Your task to perform on an android device: Find coffee shops on Maps Image 0: 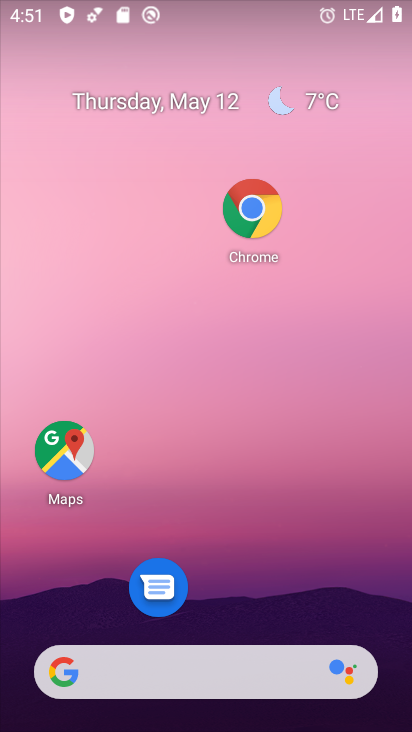
Step 0: drag from (248, 587) to (245, 121)
Your task to perform on an android device: Find coffee shops on Maps Image 1: 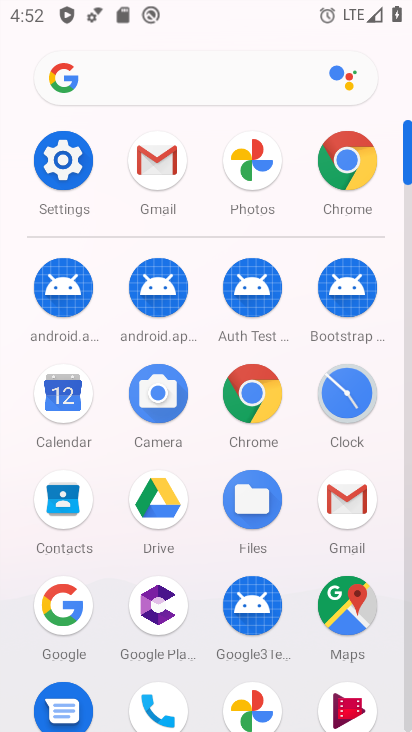
Step 1: drag from (216, 679) to (215, 342)
Your task to perform on an android device: Find coffee shops on Maps Image 2: 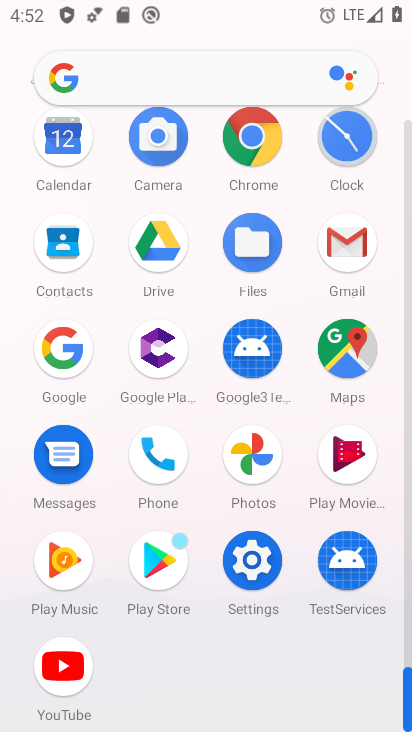
Step 2: click (364, 353)
Your task to perform on an android device: Find coffee shops on Maps Image 3: 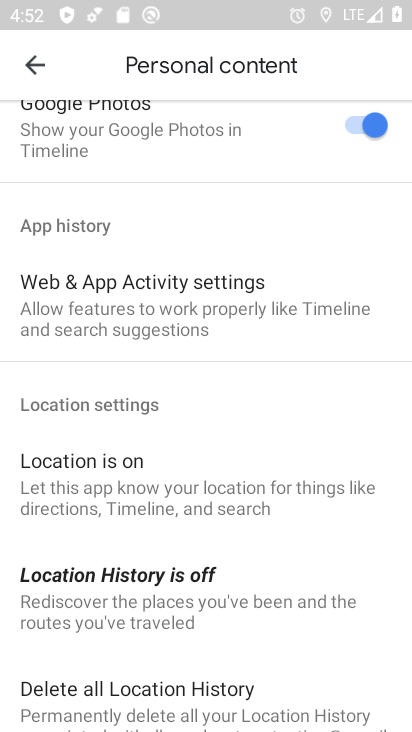
Step 3: click (22, 49)
Your task to perform on an android device: Find coffee shops on Maps Image 4: 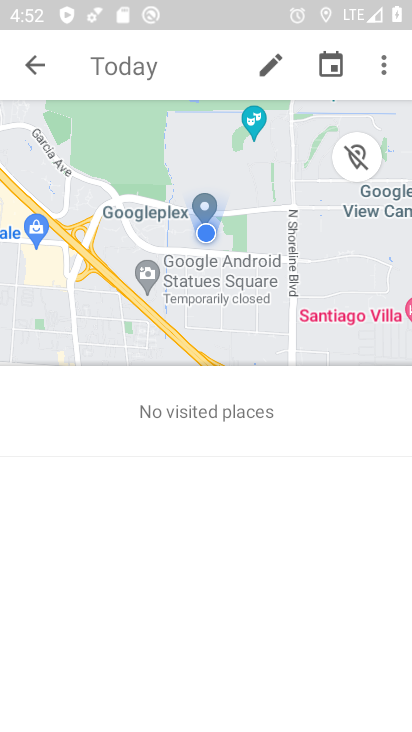
Step 4: click (30, 79)
Your task to perform on an android device: Find coffee shops on Maps Image 5: 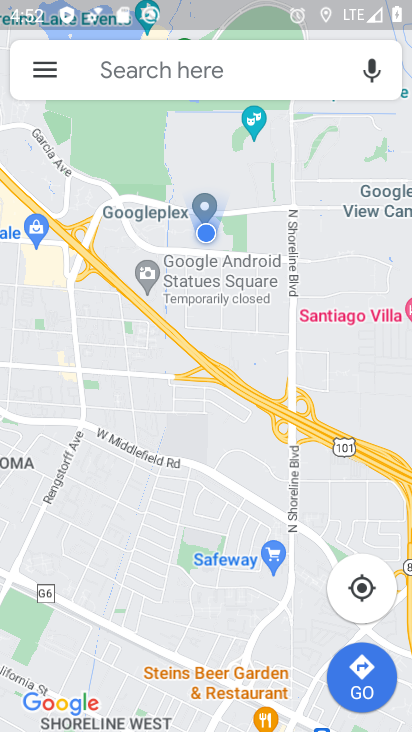
Step 5: click (172, 84)
Your task to perform on an android device: Find coffee shops on Maps Image 6: 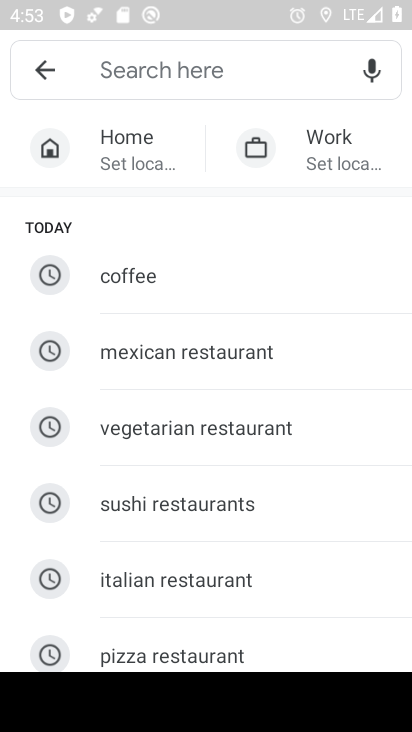
Step 6: click (127, 272)
Your task to perform on an android device: Find coffee shops on Maps Image 7: 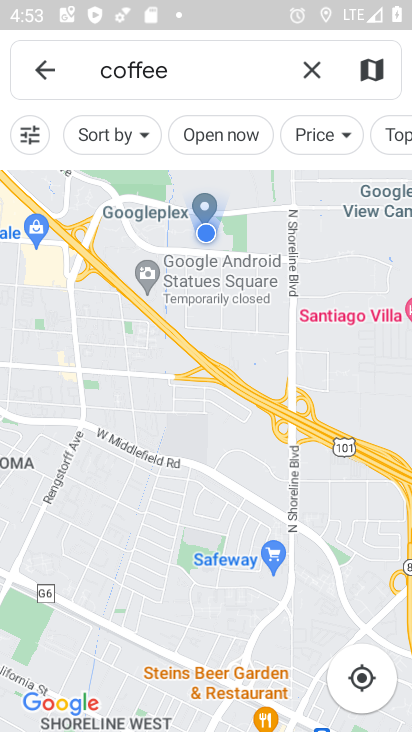
Step 7: click (235, 71)
Your task to perform on an android device: Find coffee shops on Maps Image 8: 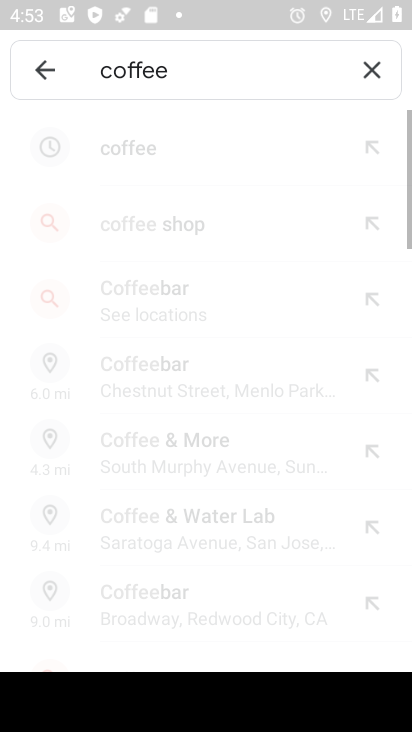
Step 8: click (214, 75)
Your task to perform on an android device: Find coffee shops on Maps Image 9: 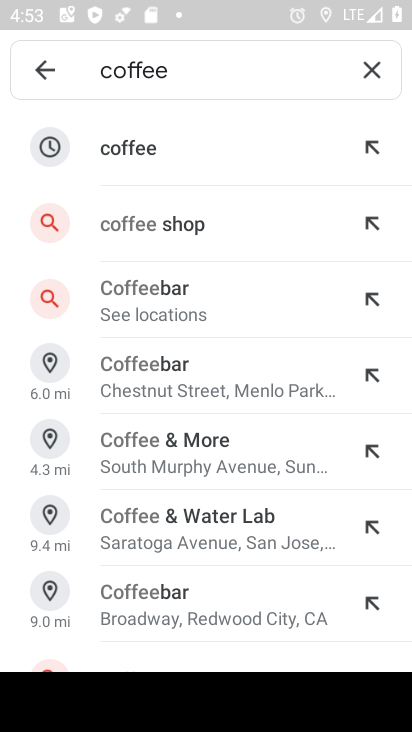
Step 9: click (170, 203)
Your task to perform on an android device: Find coffee shops on Maps Image 10: 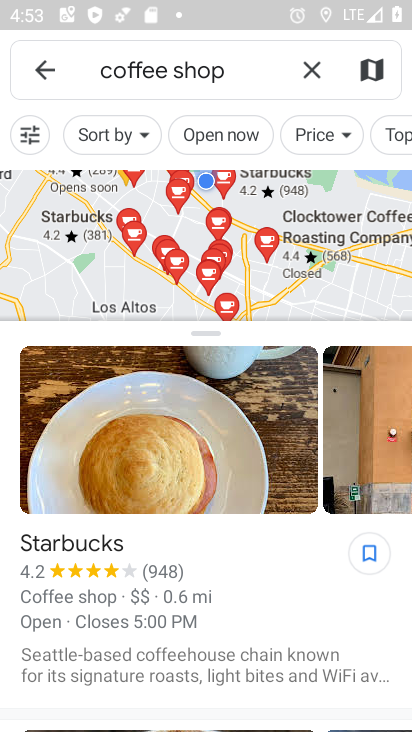
Step 10: task complete